Your task to perform on an android device: Open wifi settings Image 0: 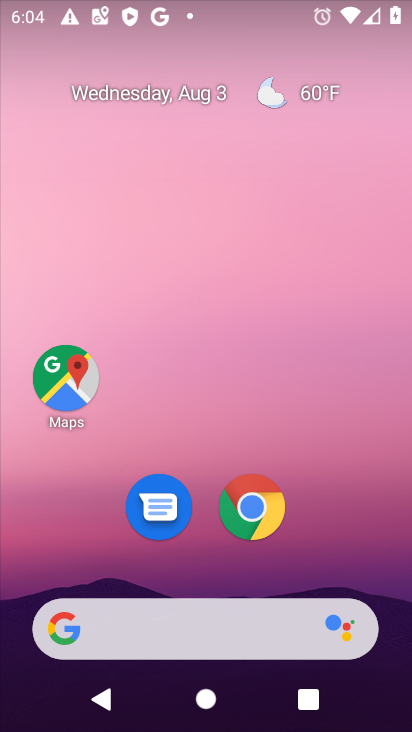
Step 0: drag from (346, 495) to (357, 81)
Your task to perform on an android device: Open wifi settings Image 1: 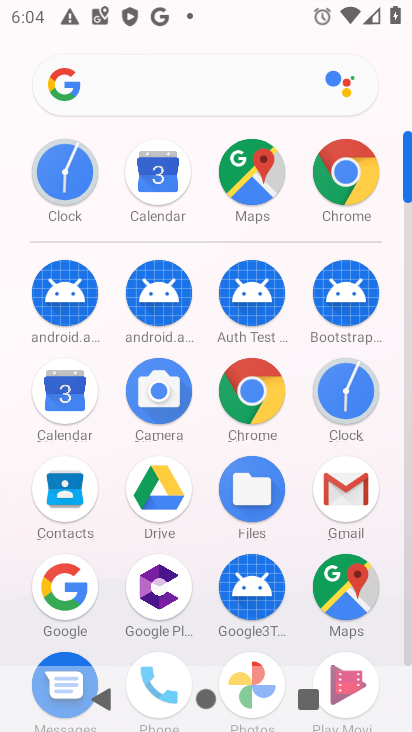
Step 1: drag from (213, 554) to (242, 199)
Your task to perform on an android device: Open wifi settings Image 2: 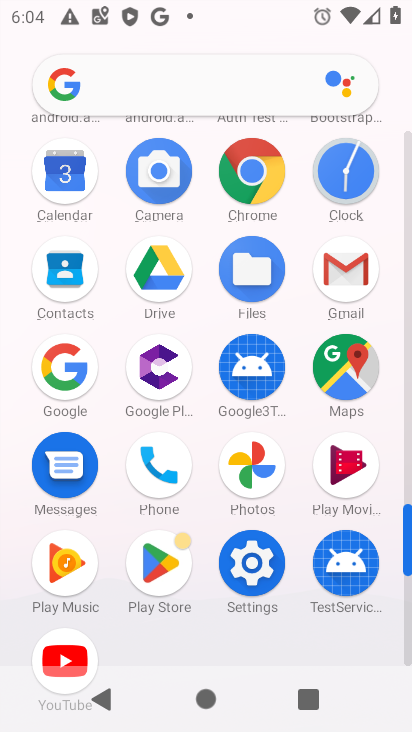
Step 2: click (261, 565)
Your task to perform on an android device: Open wifi settings Image 3: 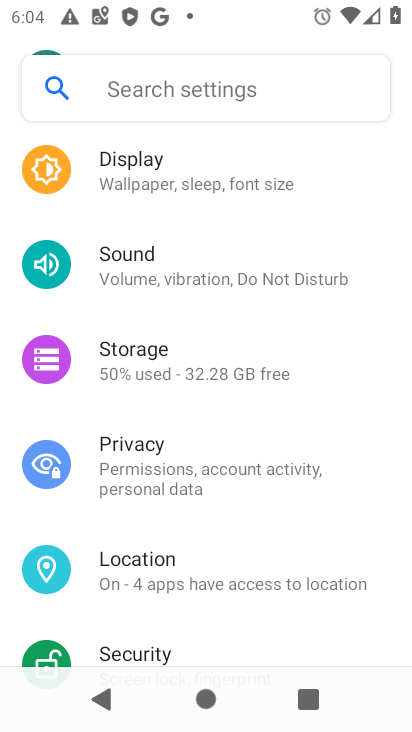
Step 3: drag from (213, 166) to (242, 543)
Your task to perform on an android device: Open wifi settings Image 4: 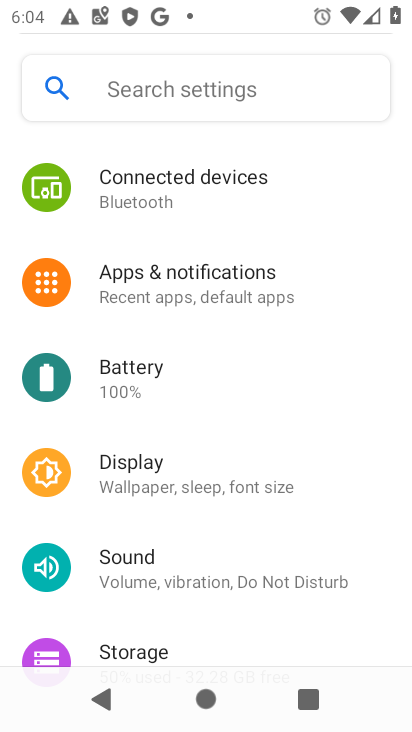
Step 4: click (212, 196)
Your task to perform on an android device: Open wifi settings Image 5: 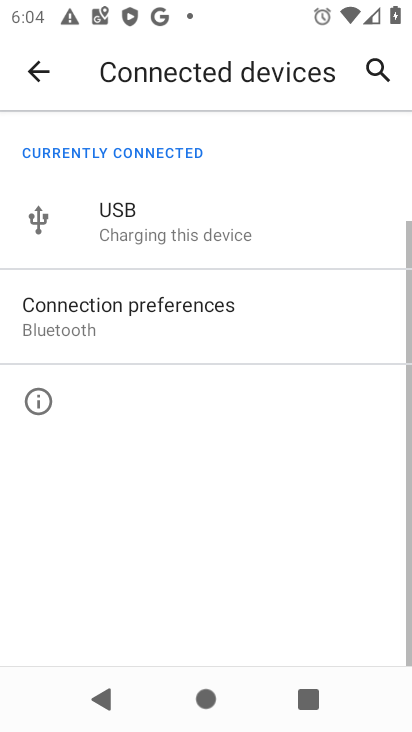
Step 5: click (34, 65)
Your task to perform on an android device: Open wifi settings Image 6: 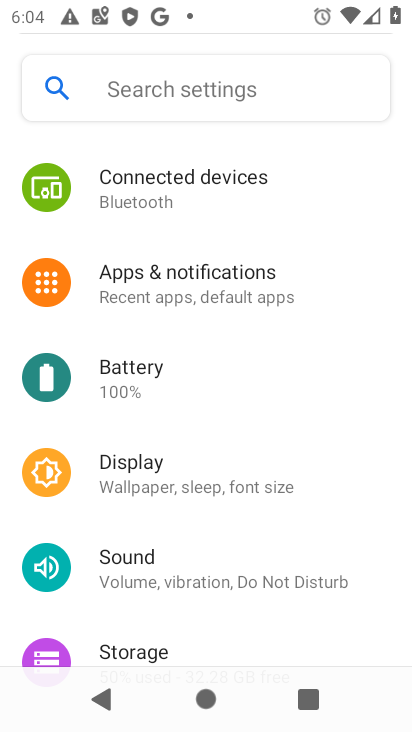
Step 6: drag from (255, 188) to (230, 653)
Your task to perform on an android device: Open wifi settings Image 7: 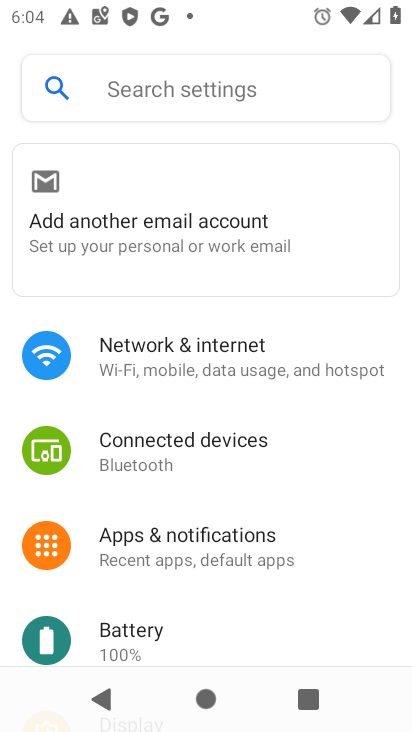
Step 7: click (231, 362)
Your task to perform on an android device: Open wifi settings Image 8: 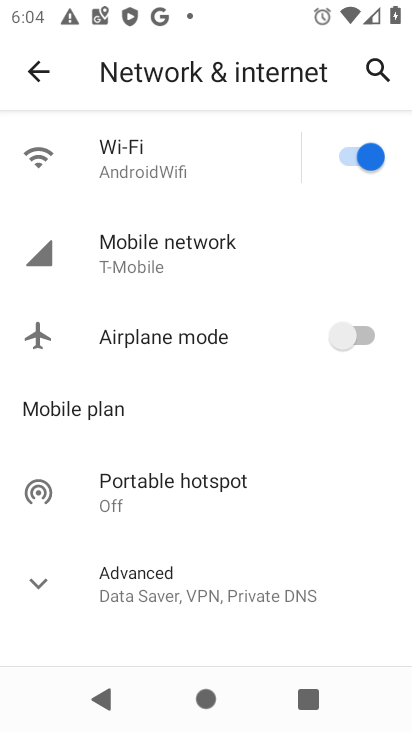
Step 8: click (230, 146)
Your task to perform on an android device: Open wifi settings Image 9: 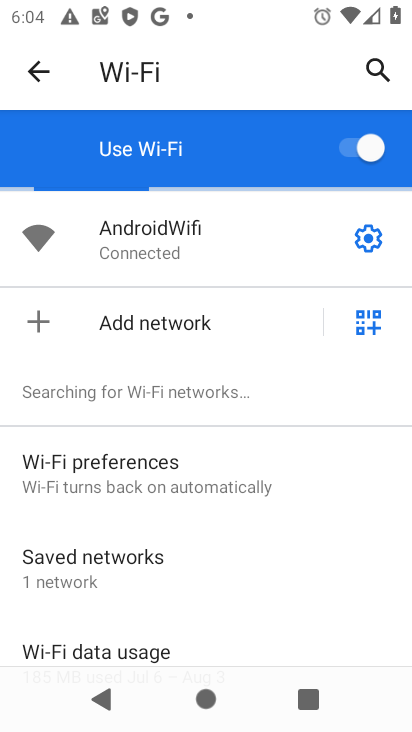
Step 9: click (360, 228)
Your task to perform on an android device: Open wifi settings Image 10: 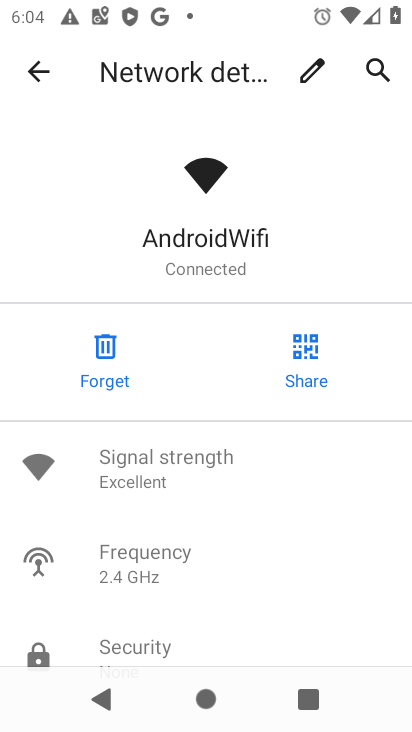
Step 10: task complete